Your task to perform on an android device: open chrome and create a bookmark for the current page Image 0: 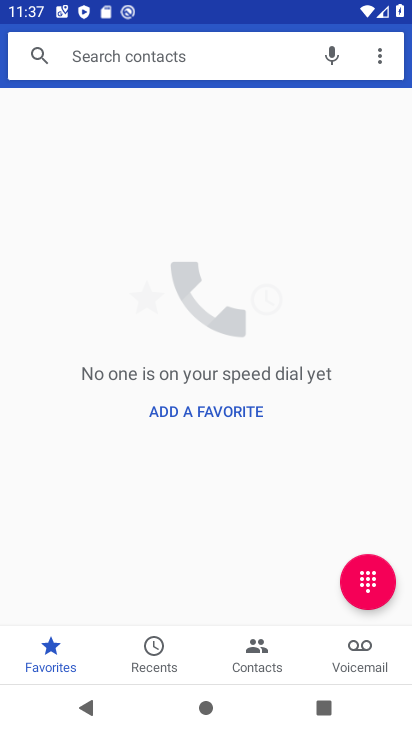
Step 0: press home button
Your task to perform on an android device: open chrome and create a bookmark for the current page Image 1: 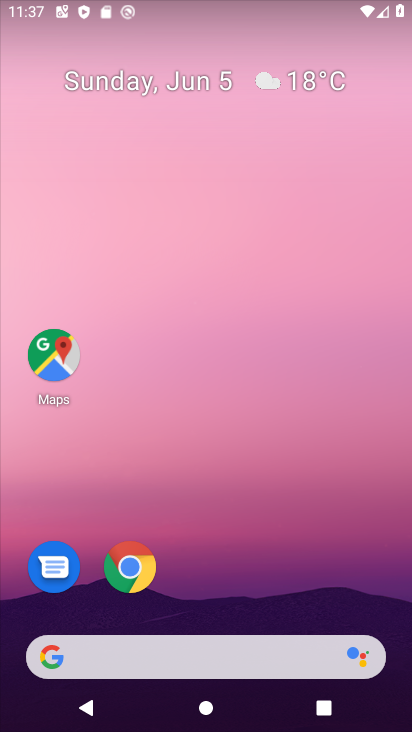
Step 1: click (136, 571)
Your task to perform on an android device: open chrome and create a bookmark for the current page Image 2: 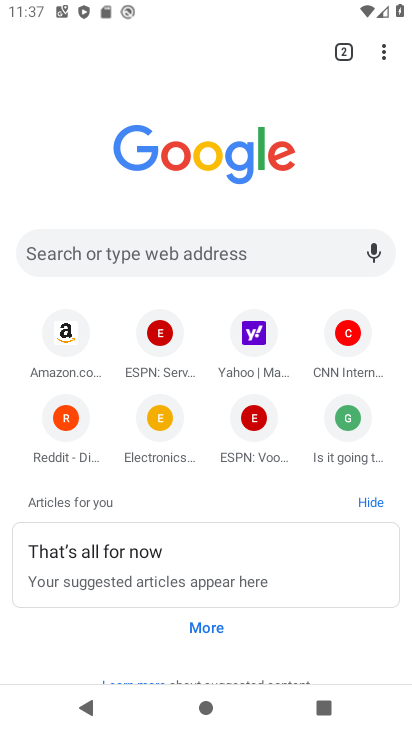
Step 2: click (380, 51)
Your task to perform on an android device: open chrome and create a bookmark for the current page Image 3: 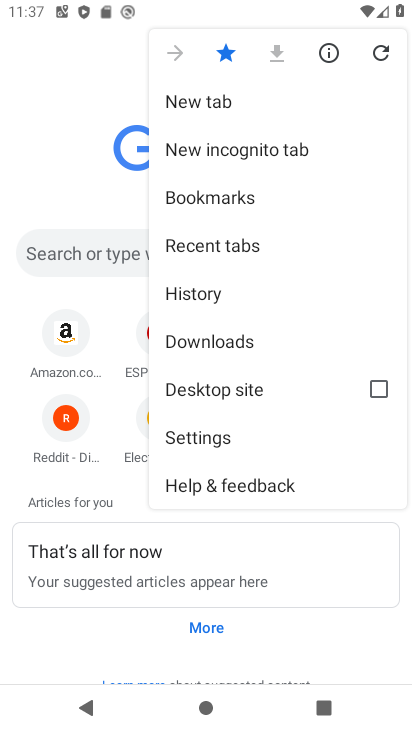
Step 3: task complete